Your task to perform on an android device: empty trash in the gmail app Image 0: 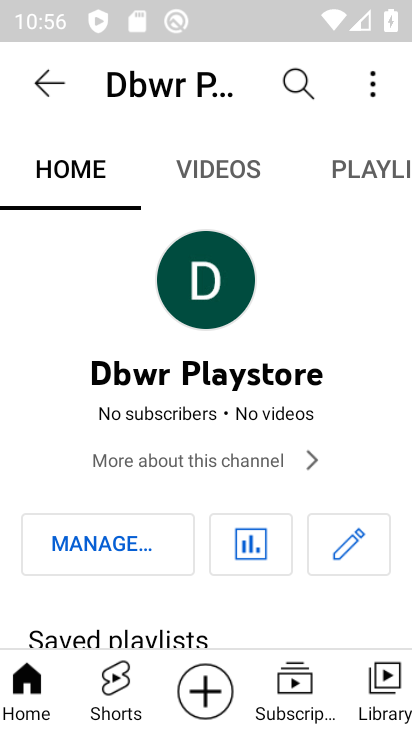
Step 0: press home button
Your task to perform on an android device: empty trash in the gmail app Image 1: 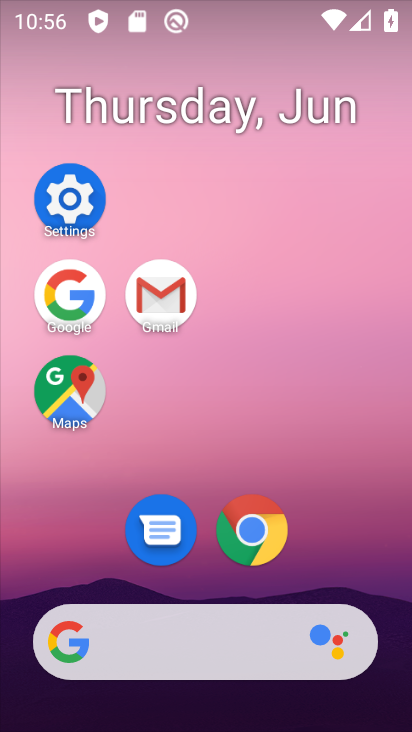
Step 1: click (154, 290)
Your task to perform on an android device: empty trash in the gmail app Image 2: 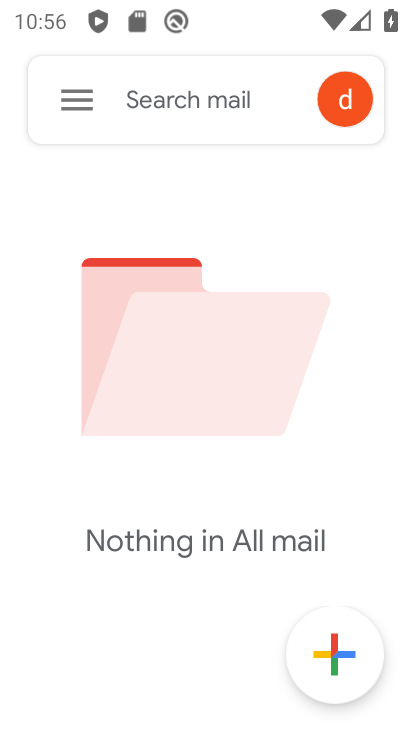
Step 2: click (90, 111)
Your task to perform on an android device: empty trash in the gmail app Image 3: 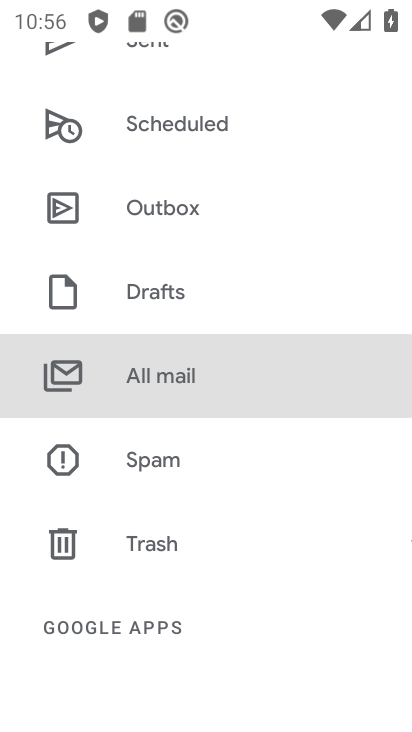
Step 3: click (192, 527)
Your task to perform on an android device: empty trash in the gmail app Image 4: 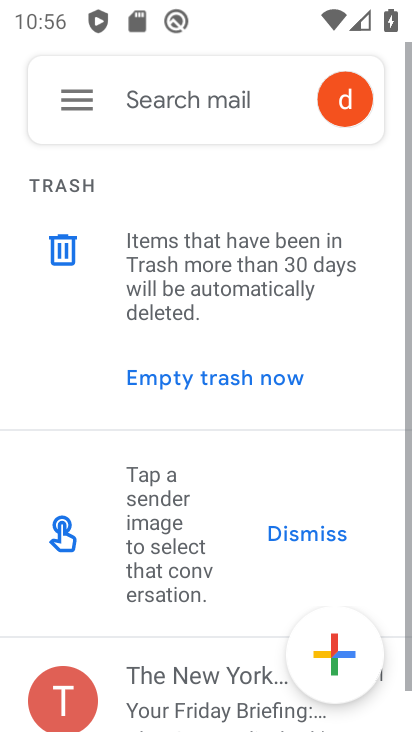
Step 4: task complete